Your task to perform on an android device: open a bookmark in the chrome app Image 0: 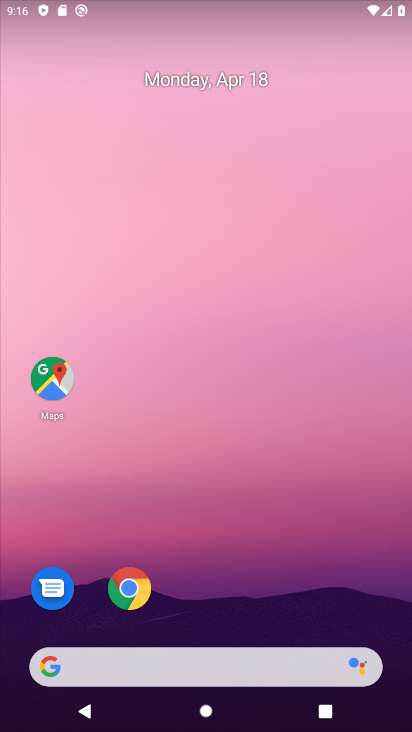
Step 0: drag from (313, 610) to (317, 92)
Your task to perform on an android device: open a bookmark in the chrome app Image 1: 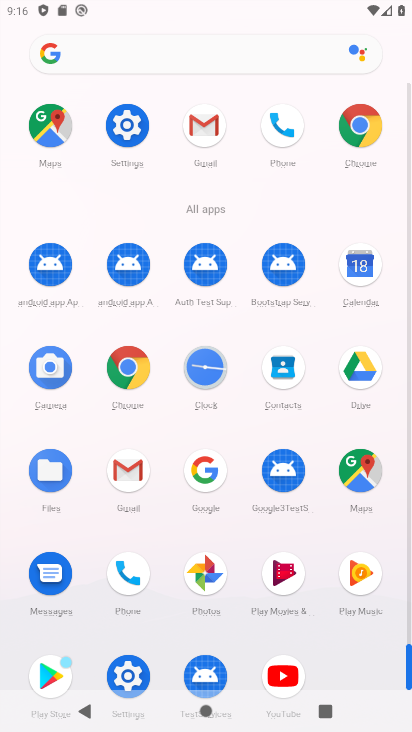
Step 1: click (127, 365)
Your task to perform on an android device: open a bookmark in the chrome app Image 2: 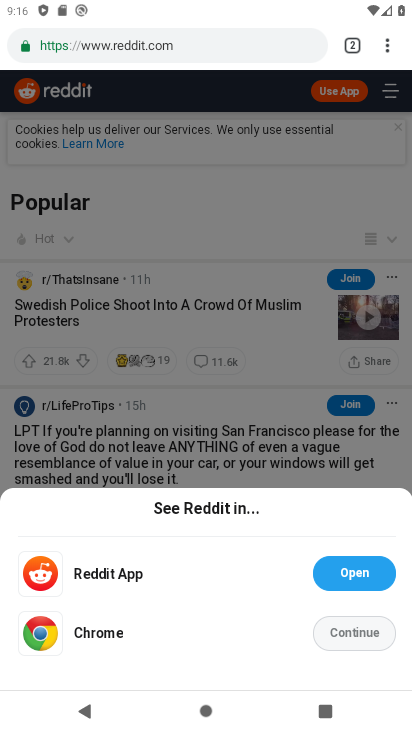
Step 2: task complete